Your task to perform on an android device: change the clock style Image 0: 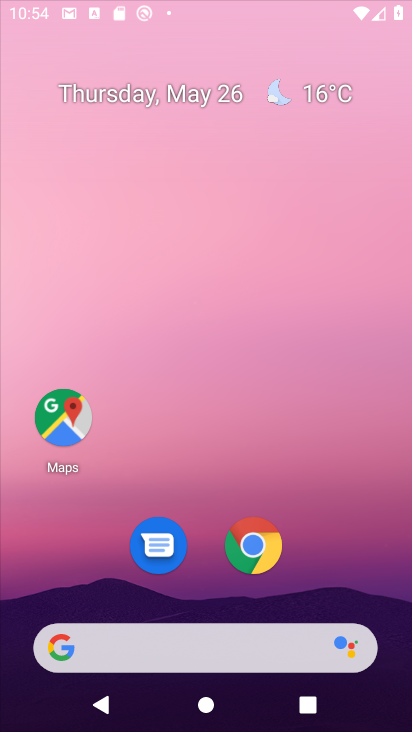
Step 0: press home button
Your task to perform on an android device: change the clock style Image 1: 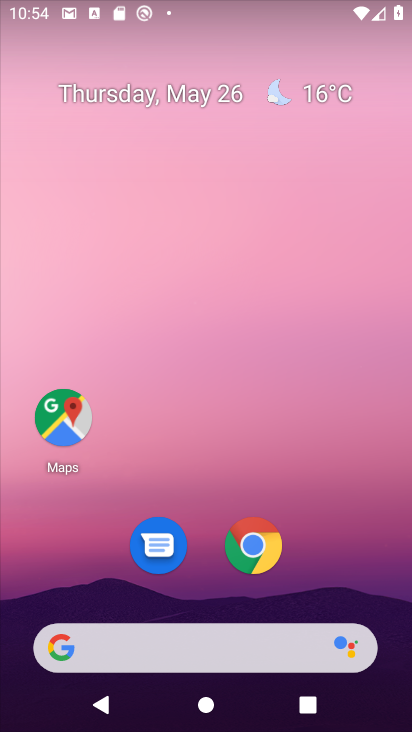
Step 1: drag from (216, 615) to (159, 196)
Your task to perform on an android device: change the clock style Image 2: 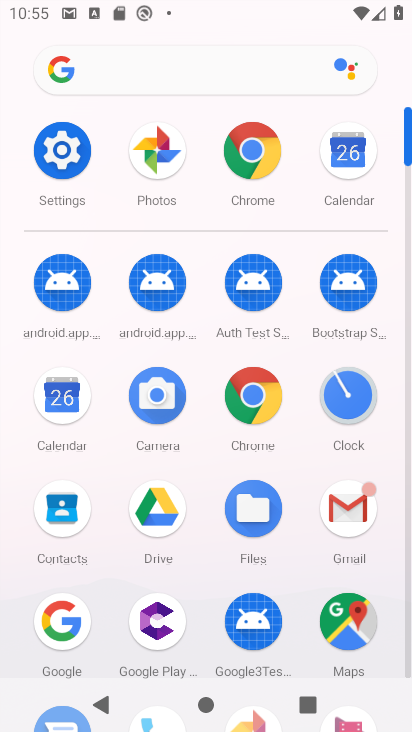
Step 2: click (347, 399)
Your task to perform on an android device: change the clock style Image 3: 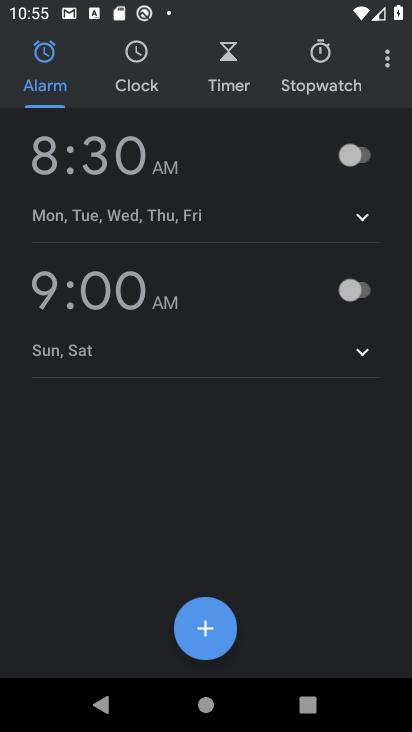
Step 3: click (385, 63)
Your task to perform on an android device: change the clock style Image 4: 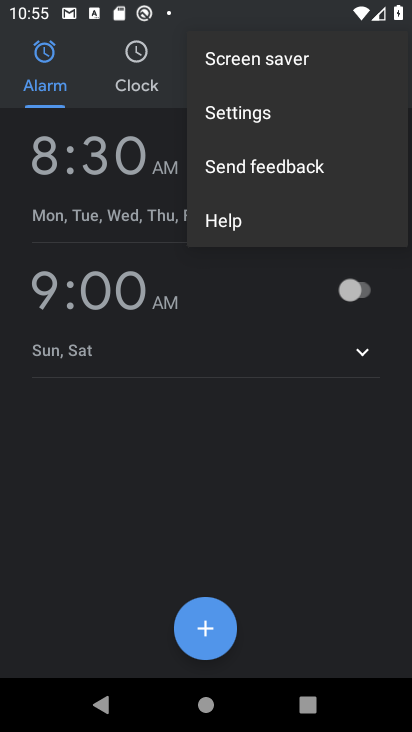
Step 4: click (239, 115)
Your task to perform on an android device: change the clock style Image 5: 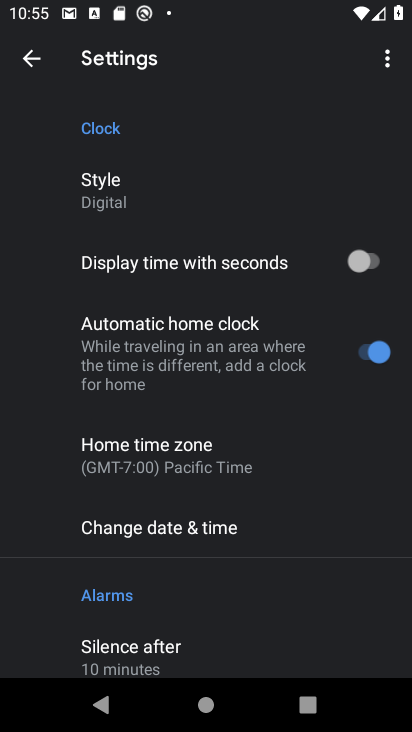
Step 5: click (102, 193)
Your task to perform on an android device: change the clock style Image 6: 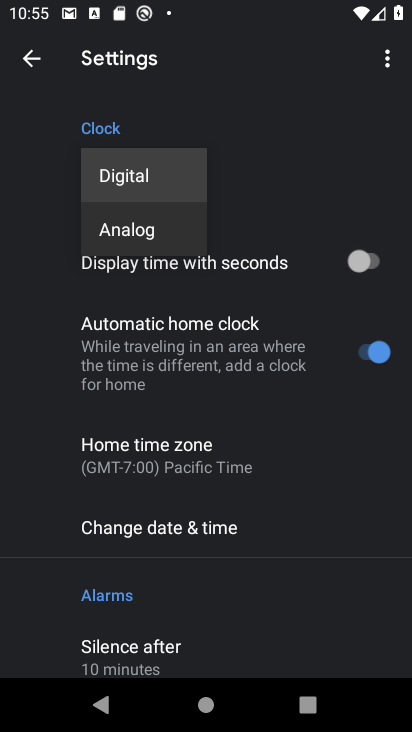
Step 6: click (129, 231)
Your task to perform on an android device: change the clock style Image 7: 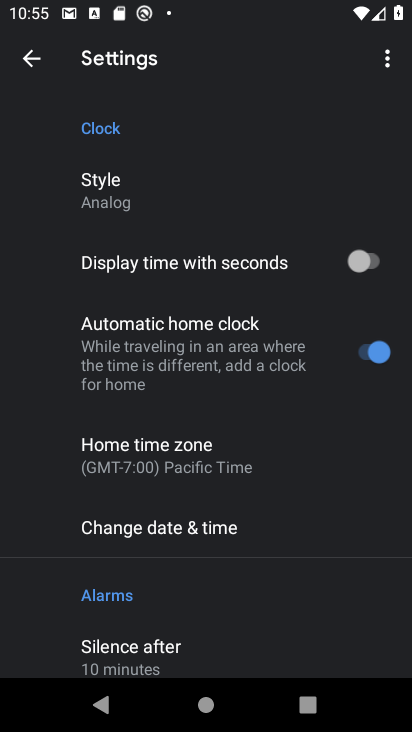
Step 7: task complete